Your task to perform on an android device: open a new tab in the chrome app Image 0: 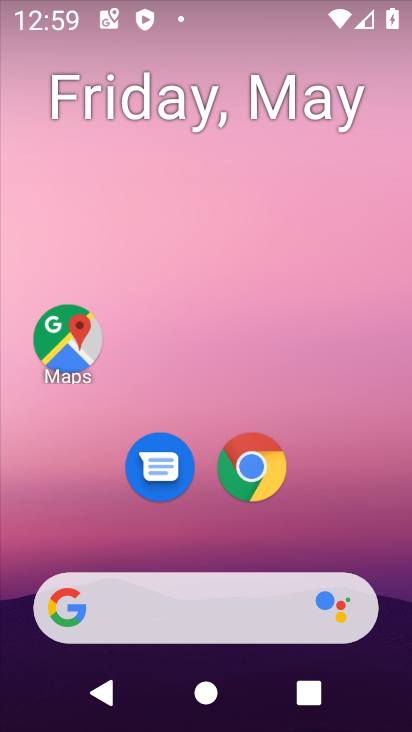
Step 0: press home button
Your task to perform on an android device: open a new tab in the chrome app Image 1: 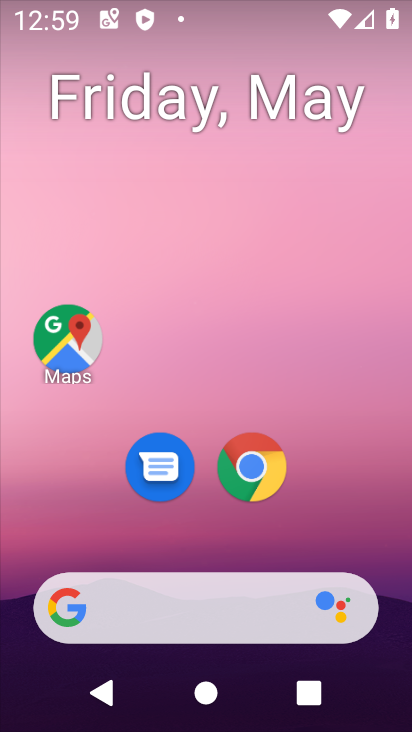
Step 1: press home button
Your task to perform on an android device: open a new tab in the chrome app Image 2: 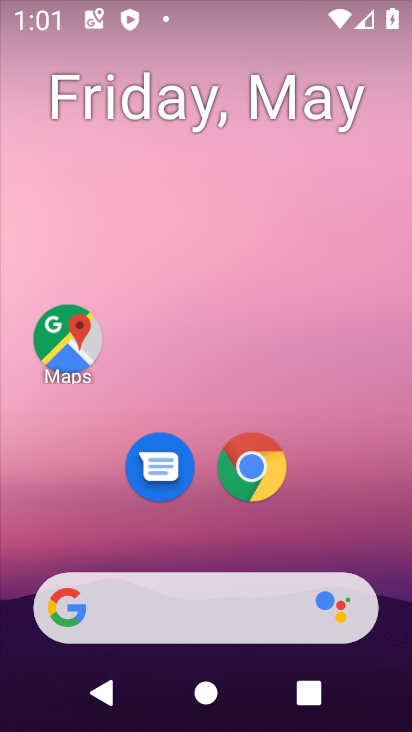
Step 2: click (241, 461)
Your task to perform on an android device: open a new tab in the chrome app Image 3: 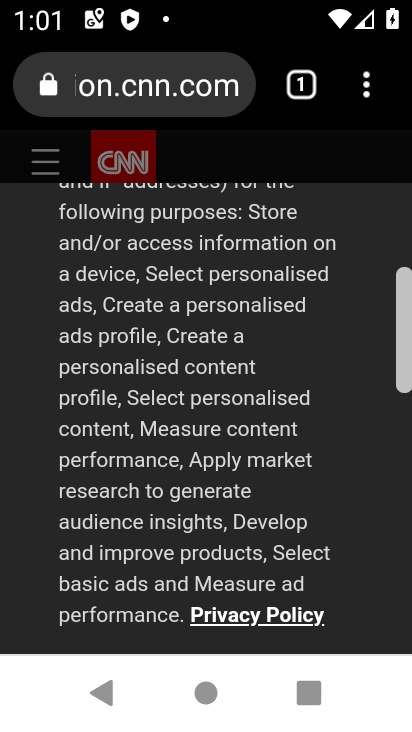
Step 3: click (241, 461)
Your task to perform on an android device: open a new tab in the chrome app Image 4: 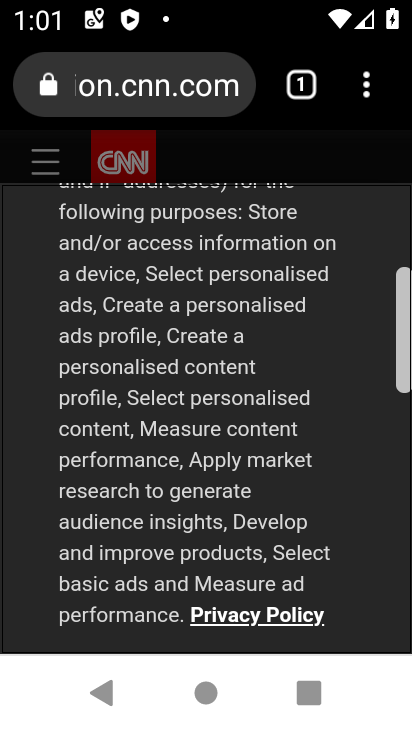
Step 4: click (279, 392)
Your task to perform on an android device: open a new tab in the chrome app Image 5: 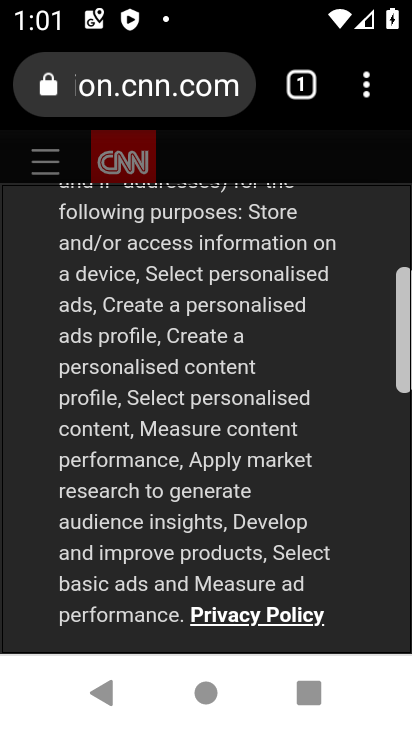
Step 5: task complete